Your task to perform on an android device: Open Google Image 0: 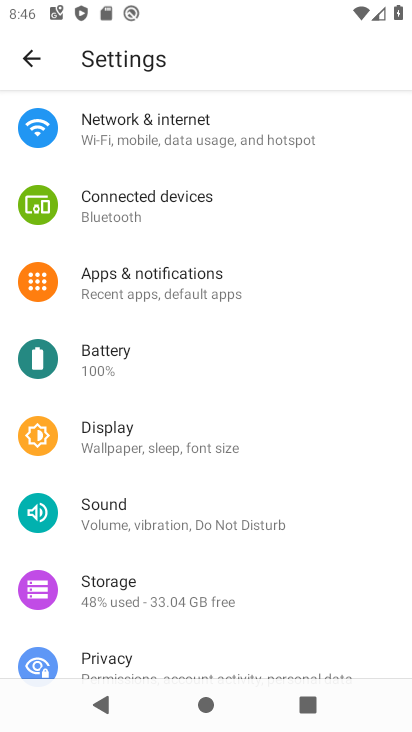
Step 0: press home button
Your task to perform on an android device: Open Google Image 1: 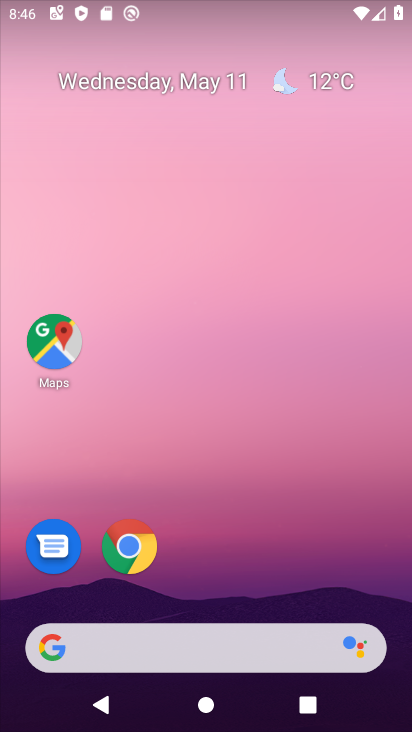
Step 1: click (132, 547)
Your task to perform on an android device: Open Google Image 2: 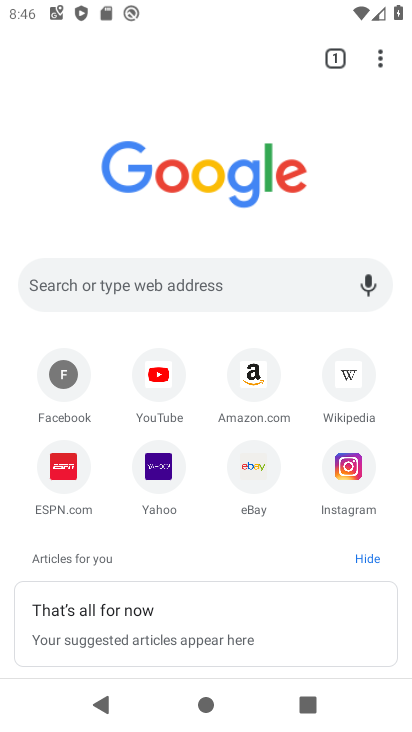
Step 2: task complete